Your task to perform on an android device: Clear the cart on walmart. Search for "lg ultragear" on walmart, select the first entry, add it to the cart, then select checkout. Image 0: 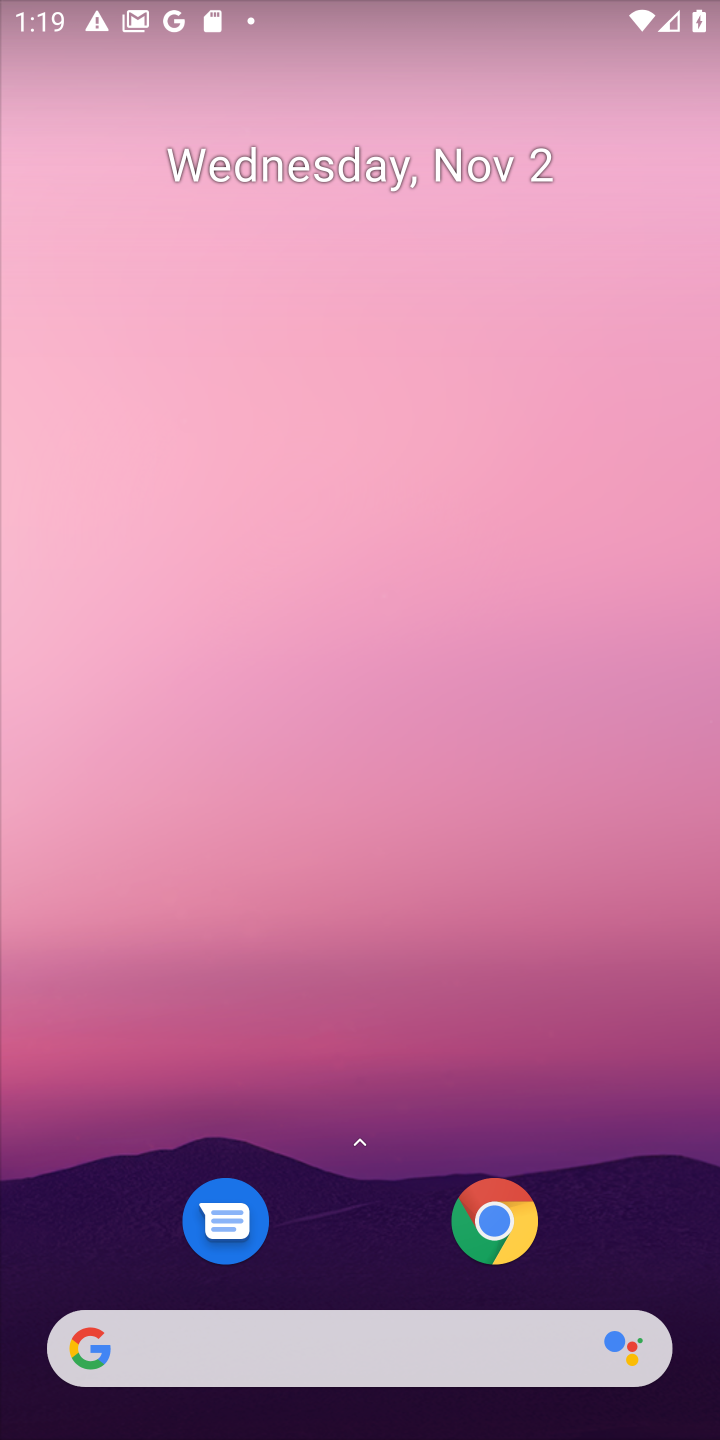
Step 0: click (438, 1389)
Your task to perform on an android device: Clear the cart on walmart. Search for "lg ultragear" on walmart, select the first entry, add it to the cart, then select checkout. Image 1: 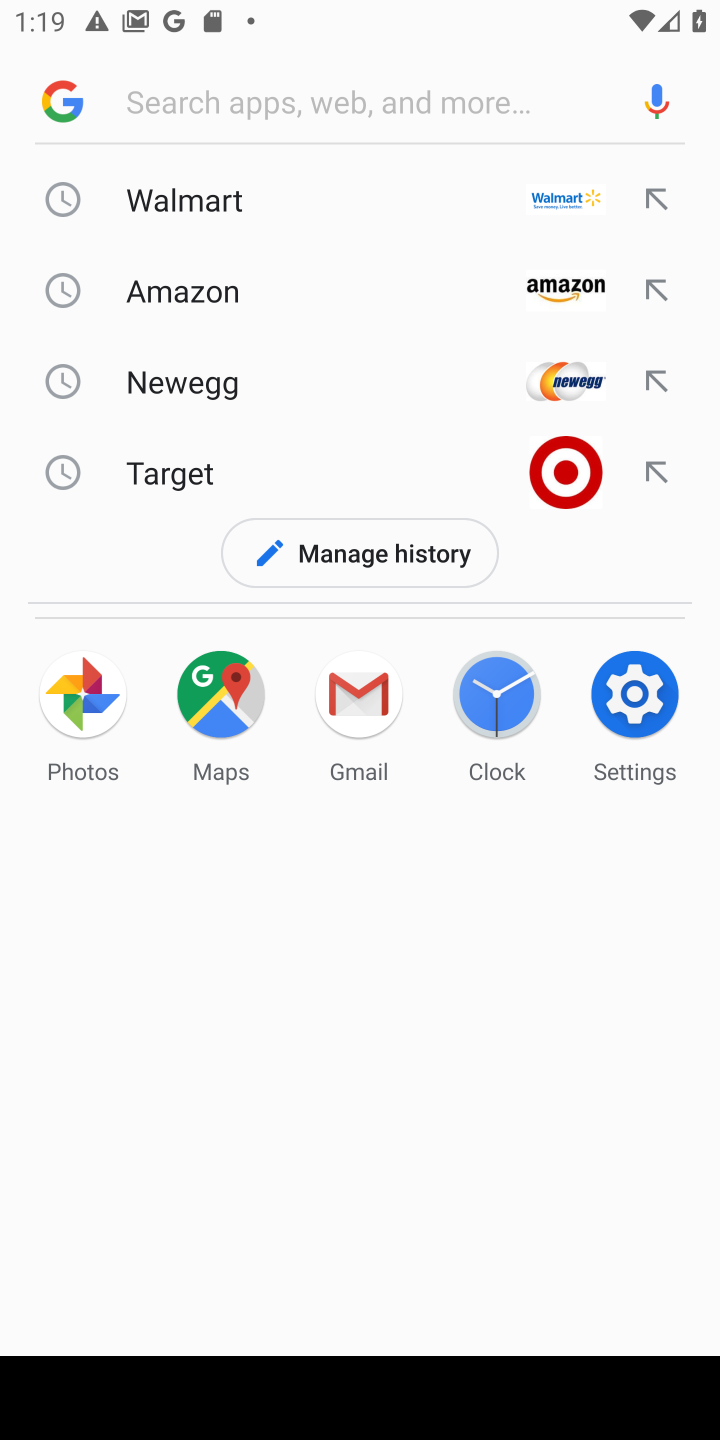
Step 1: click (240, 203)
Your task to perform on an android device: Clear the cart on walmart. Search for "lg ultragear" on walmart, select the first entry, add it to the cart, then select checkout. Image 2: 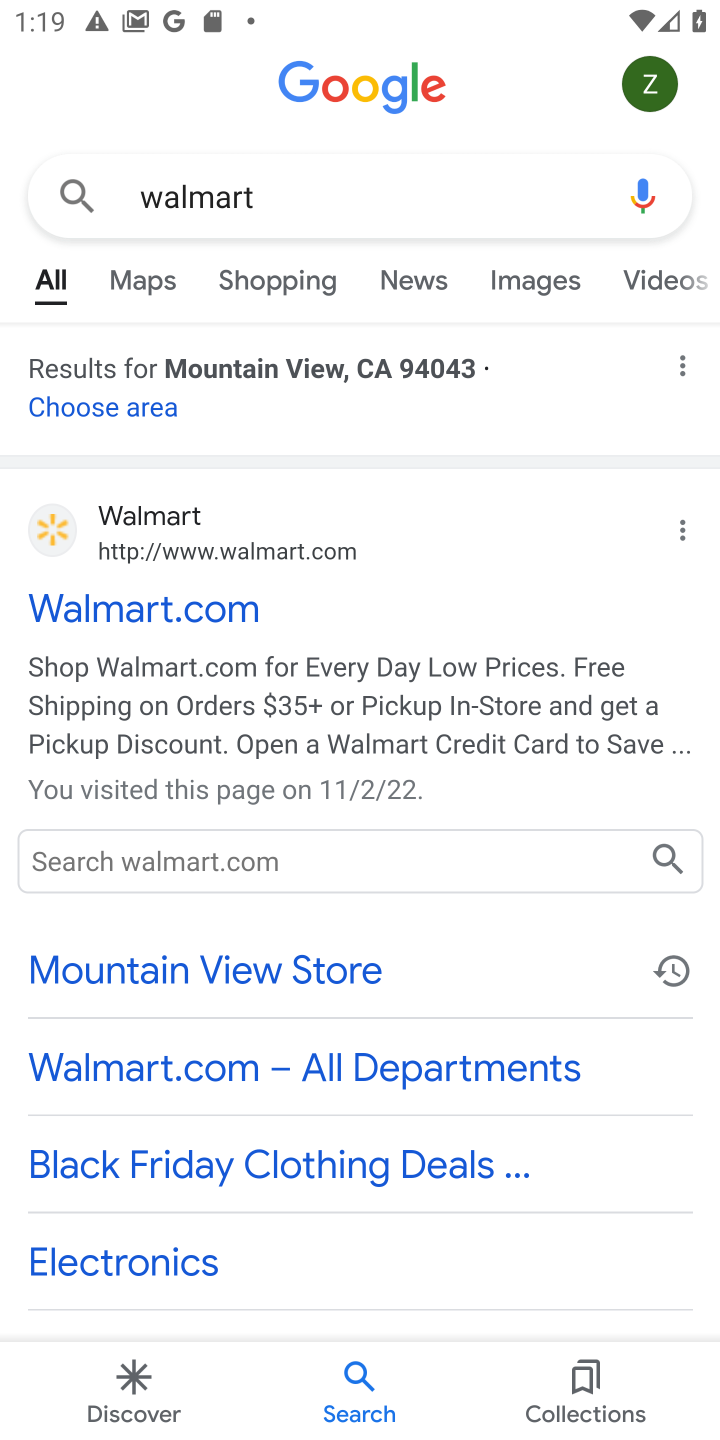
Step 2: click (138, 634)
Your task to perform on an android device: Clear the cart on walmart. Search for "lg ultragear" on walmart, select the first entry, add it to the cart, then select checkout. Image 3: 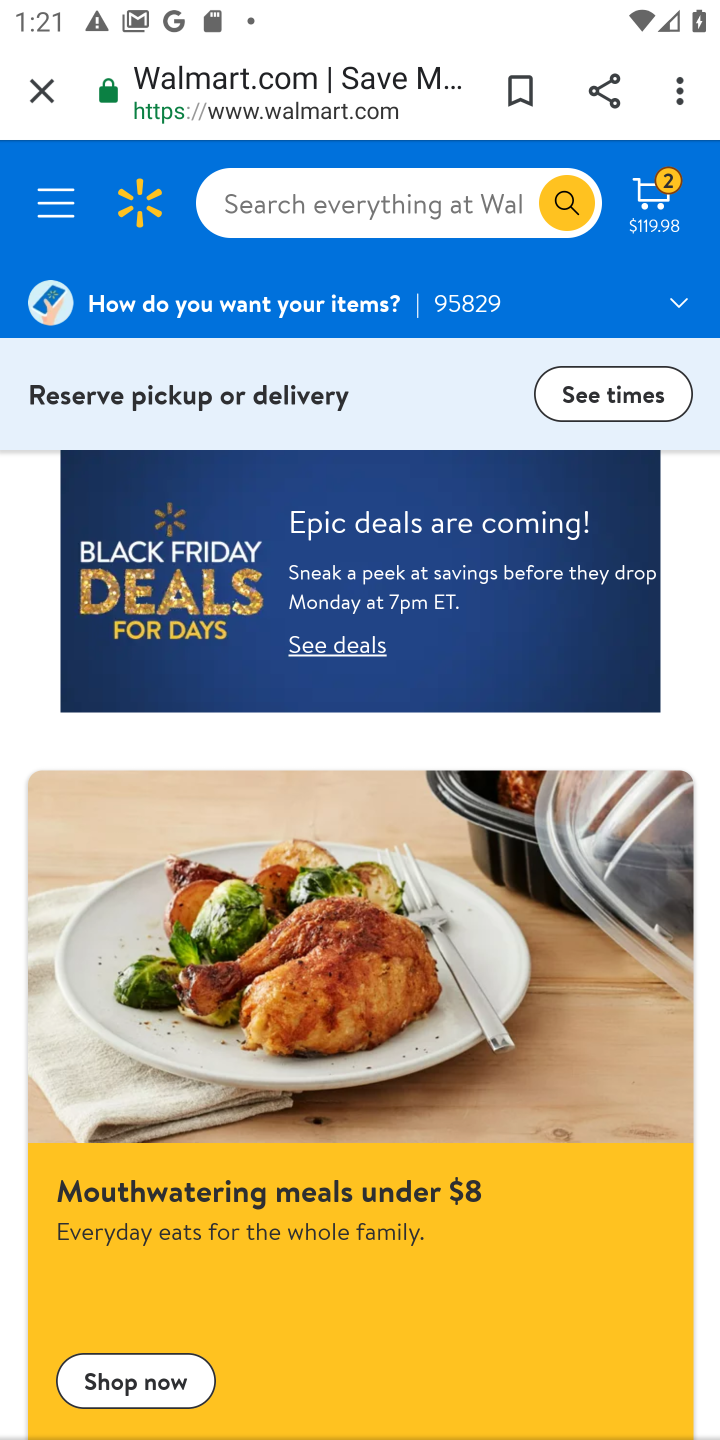
Step 3: click (313, 221)
Your task to perform on an android device: Clear the cart on walmart. Search for "lg ultragear" on walmart, select the first entry, add it to the cart, then select checkout. Image 4: 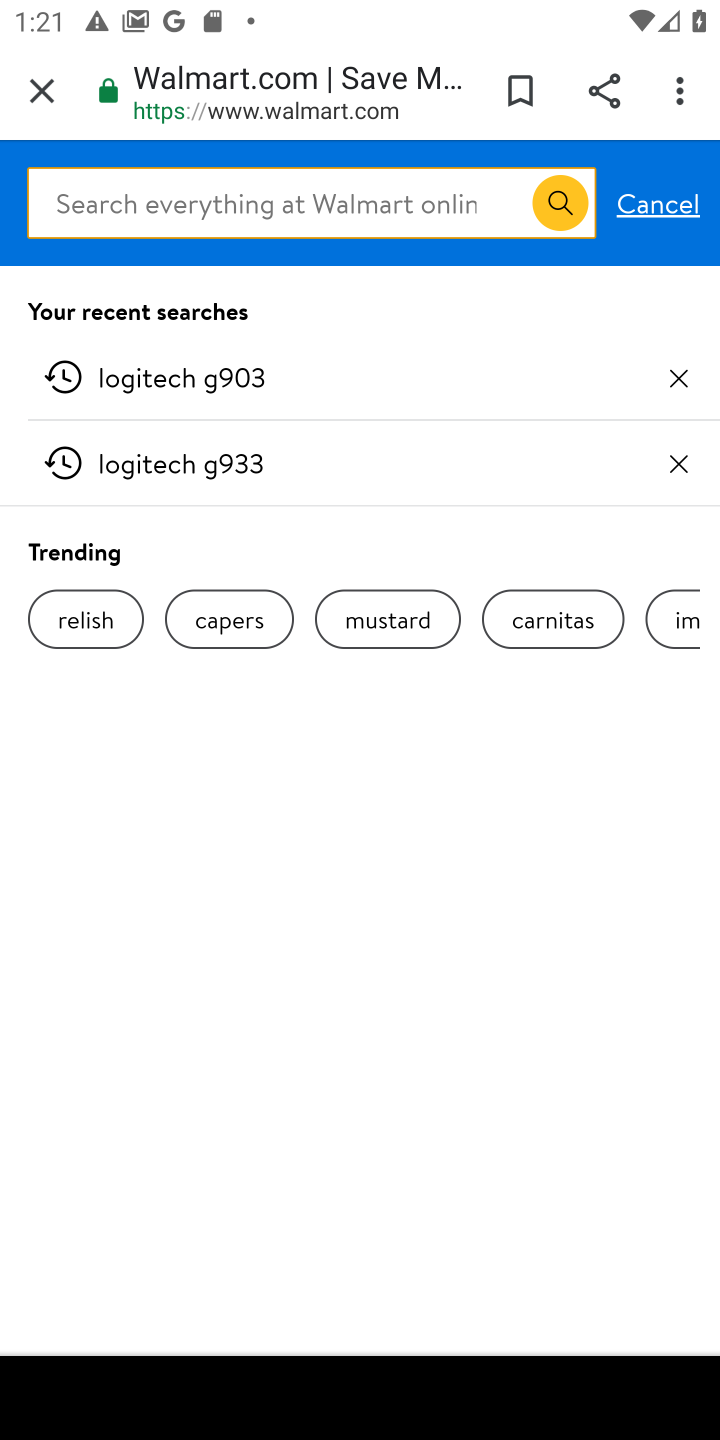
Step 4: type "lg ultragear"
Your task to perform on an android device: Clear the cart on walmart. Search for "lg ultragear" on walmart, select the first entry, add it to the cart, then select checkout. Image 5: 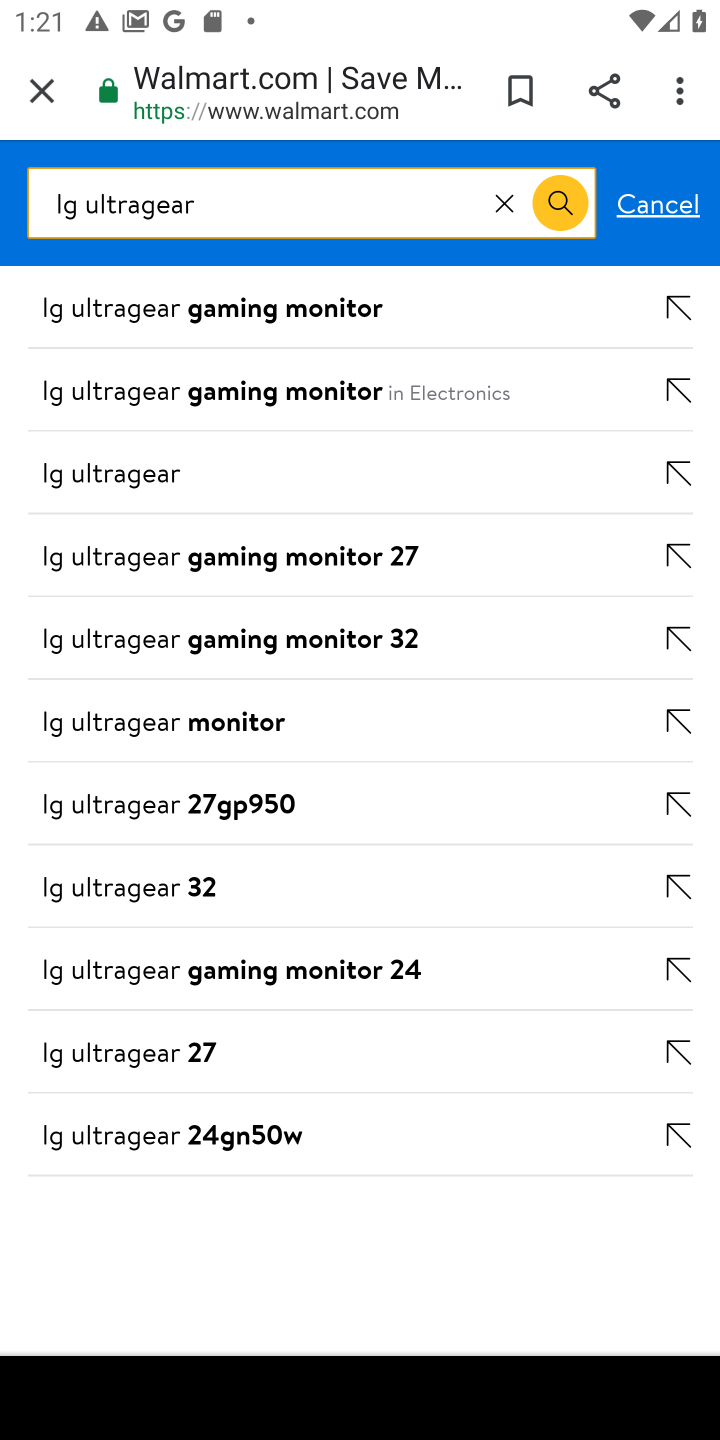
Step 5: click (311, 298)
Your task to perform on an android device: Clear the cart on walmart. Search for "lg ultragear" on walmart, select the first entry, add it to the cart, then select checkout. Image 6: 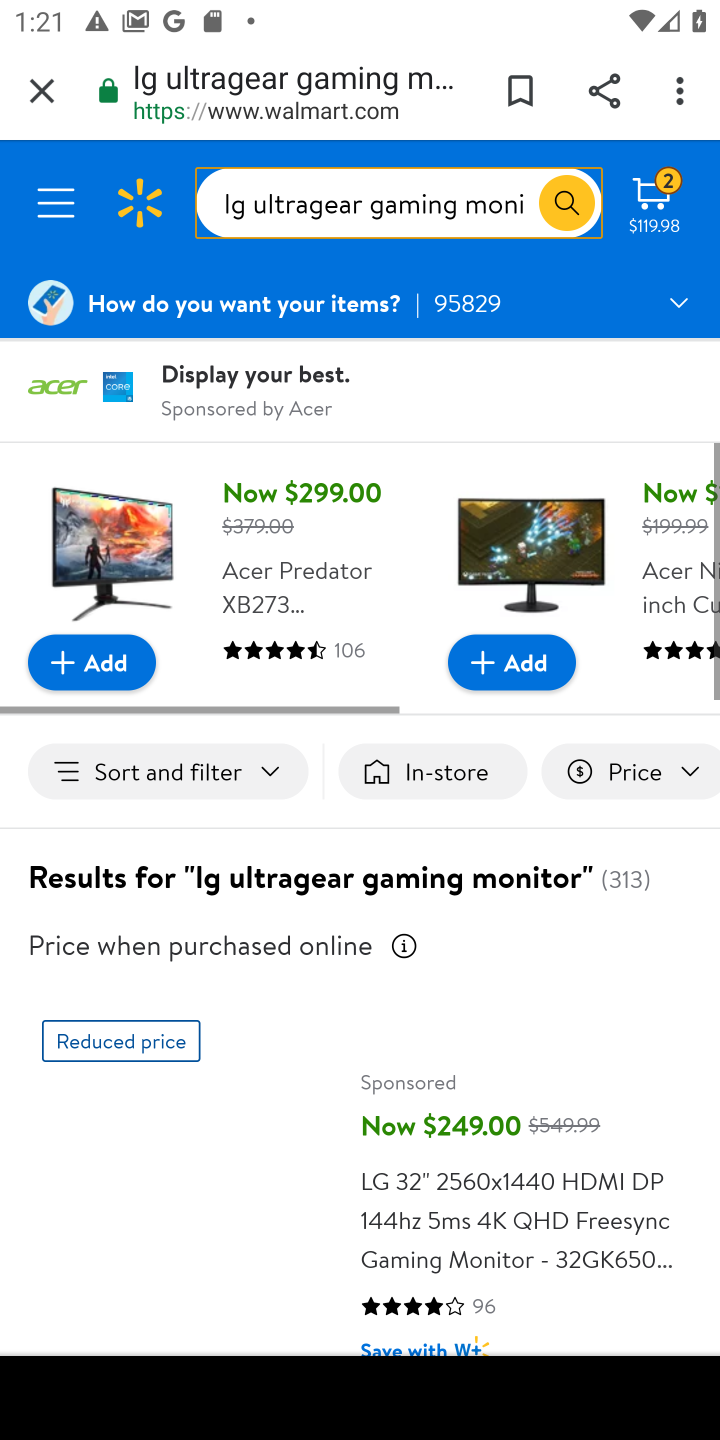
Step 6: click (432, 1160)
Your task to perform on an android device: Clear the cart on walmart. Search for "lg ultragear" on walmart, select the first entry, add it to the cart, then select checkout. Image 7: 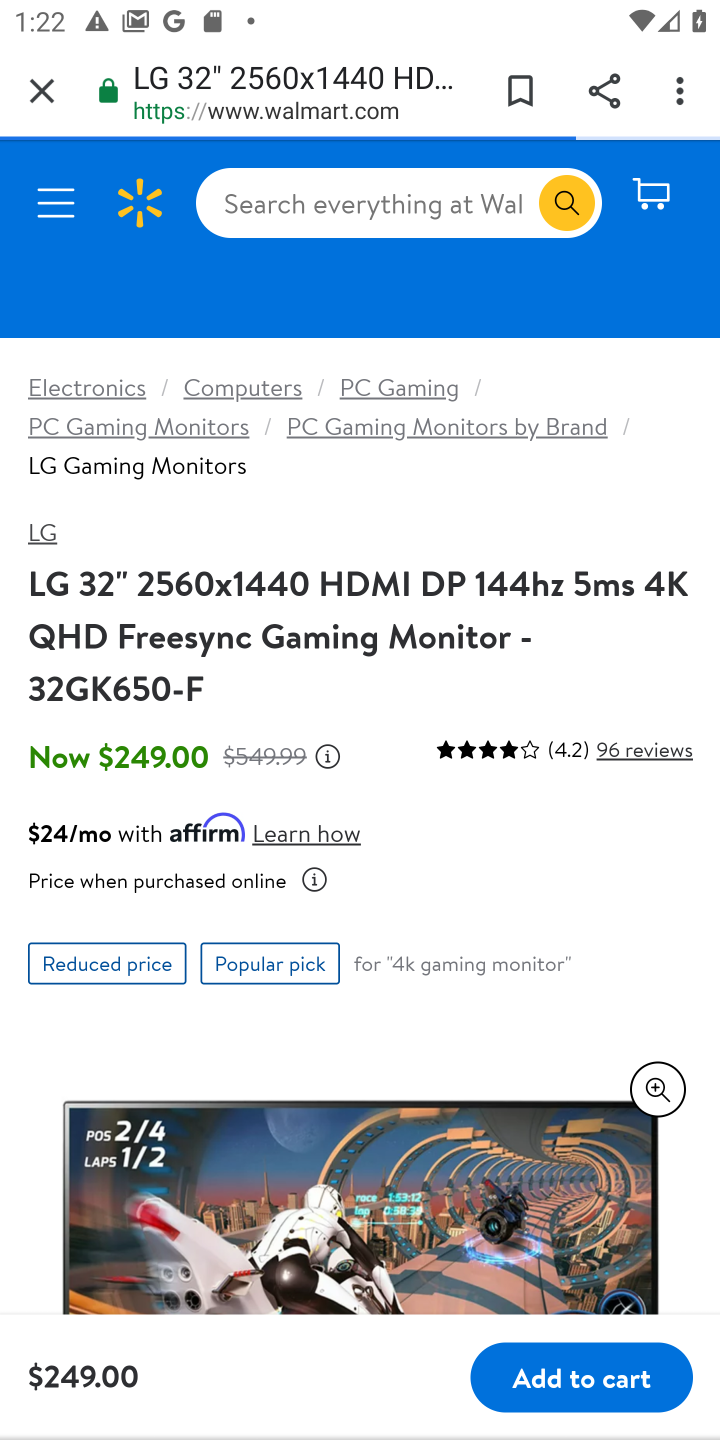
Step 7: click (515, 1405)
Your task to perform on an android device: Clear the cart on walmart. Search for "lg ultragear" on walmart, select the first entry, add it to the cart, then select checkout. Image 8: 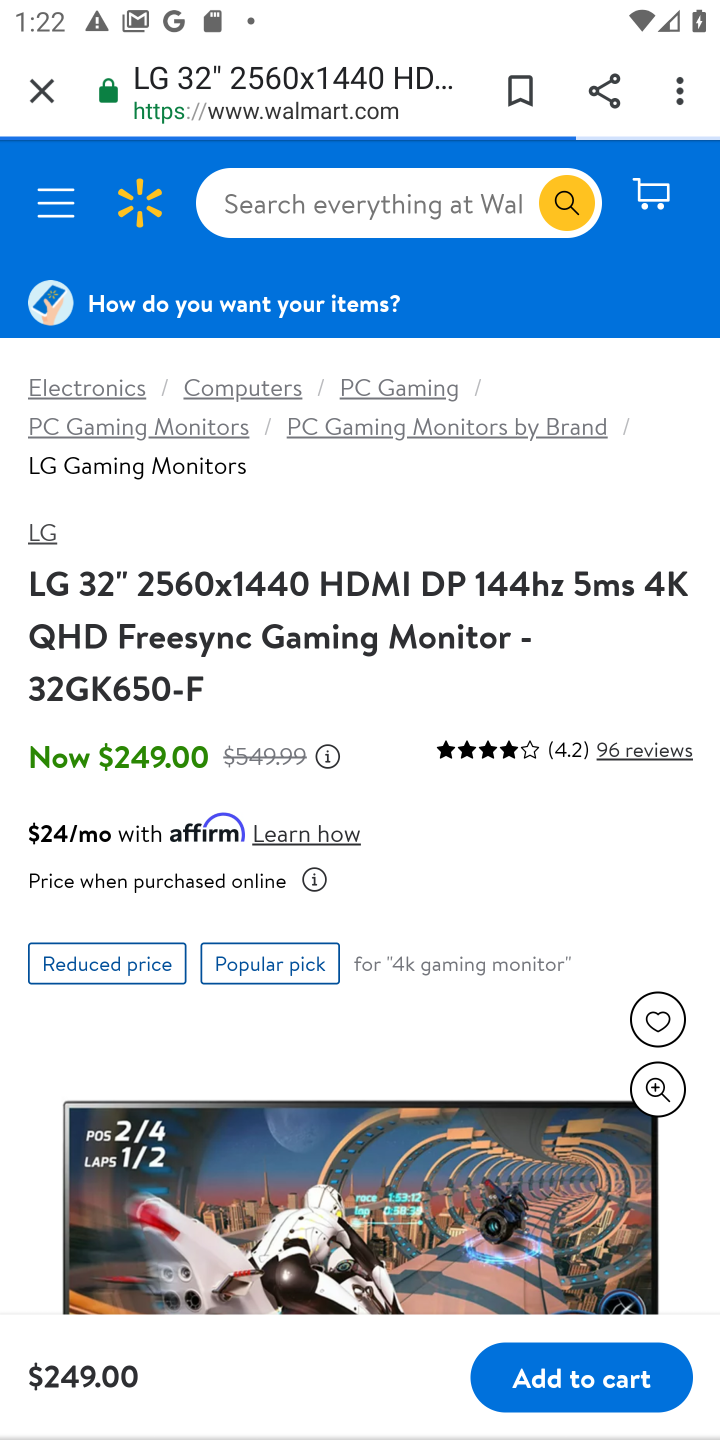
Step 8: task complete